Your task to perform on an android device: delete the emails in spam in the gmail app Image 0: 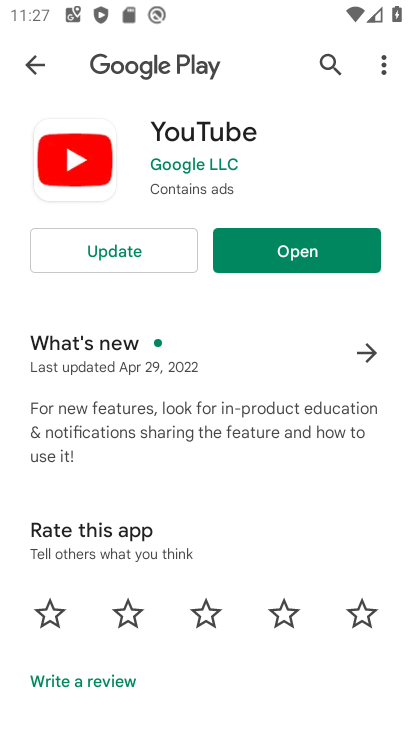
Step 0: press home button
Your task to perform on an android device: delete the emails in spam in the gmail app Image 1: 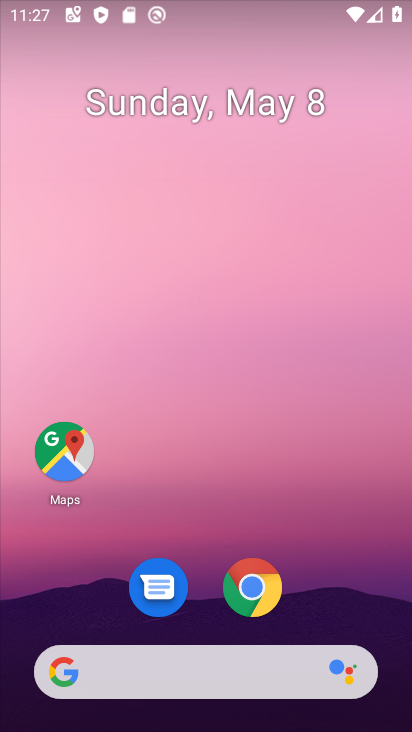
Step 1: drag from (380, 607) to (144, 12)
Your task to perform on an android device: delete the emails in spam in the gmail app Image 2: 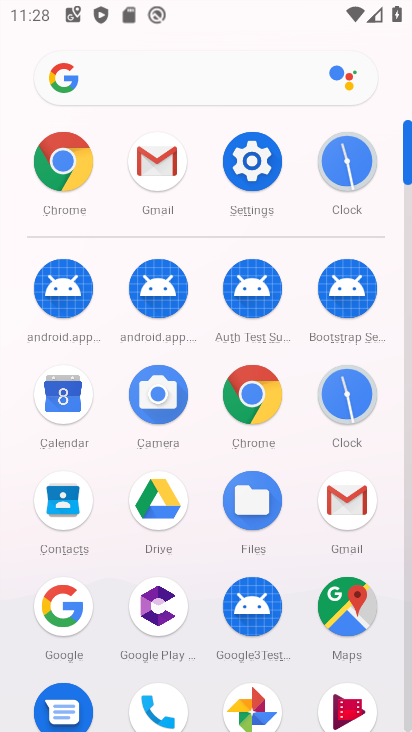
Step 2: click (344, 488)
Your task to perform on an android device: delete the emails in spam in the gmail app Image 3: 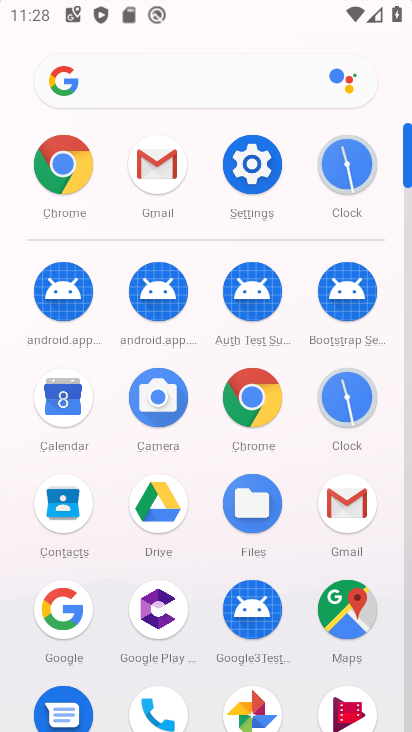
Step 3: click (344, 496)
Your task to perform on an android device: delete the emails in spam in the gmail app Image 4: 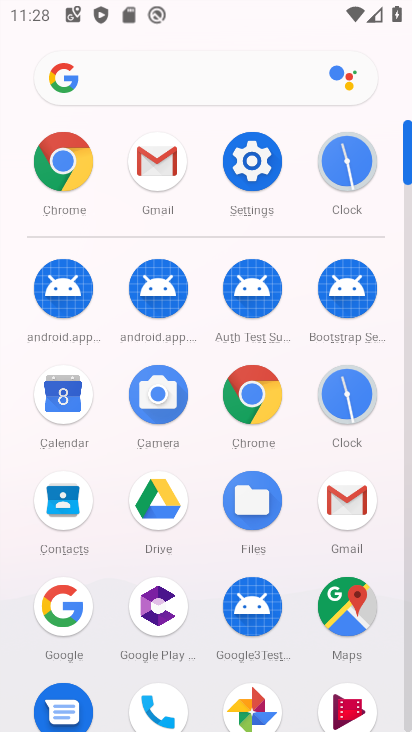
Step 4: click (160, 160)
Your task to perform on an android device: delete the emails in spam in the gmail app Image 5: 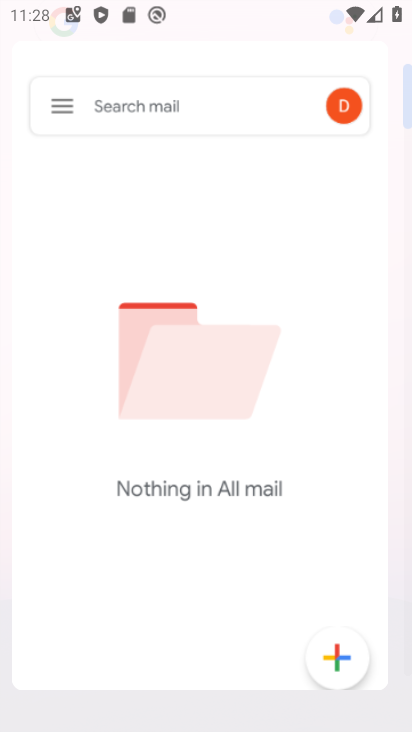
Step 5: click (142, 167)
Your task to perform on an android device: delete the emails in spam in the gmail app Image 6: 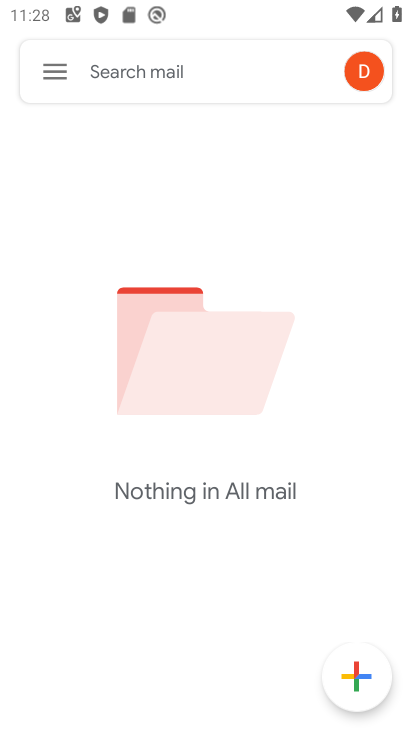
Step 6: click (142, 168)
Your task to perform on an android device: delete the emails in spam in the gmail app Image 7: 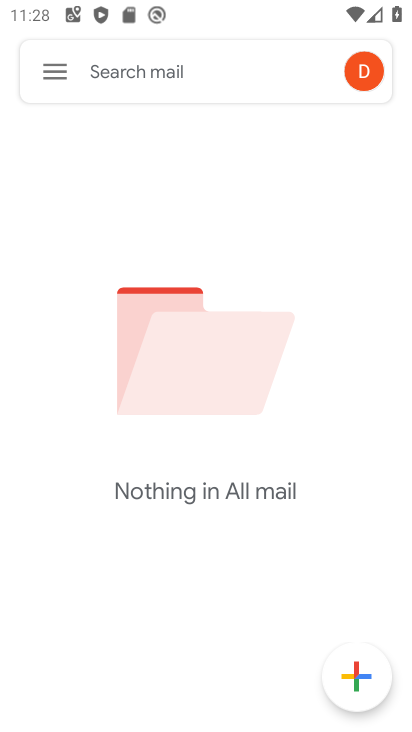
Step 7: click (43, 65)
Your task to perform on an android device: delete the emails in spam in the gmail app Image 8: 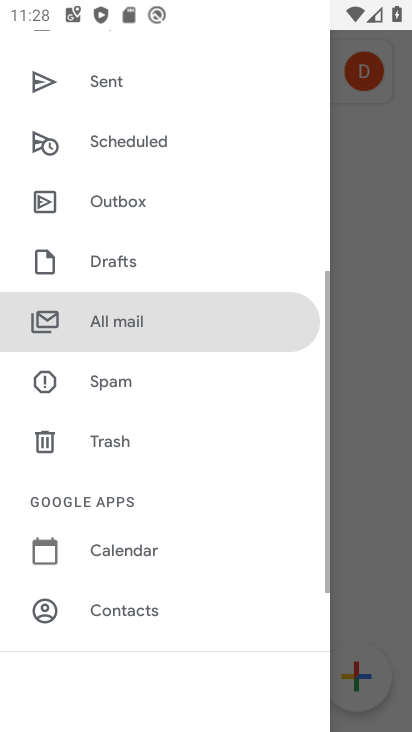
Step 8: click (140, 319)
Your task to perform on an android device: delete the emails in spam in the gmail app Image 9: 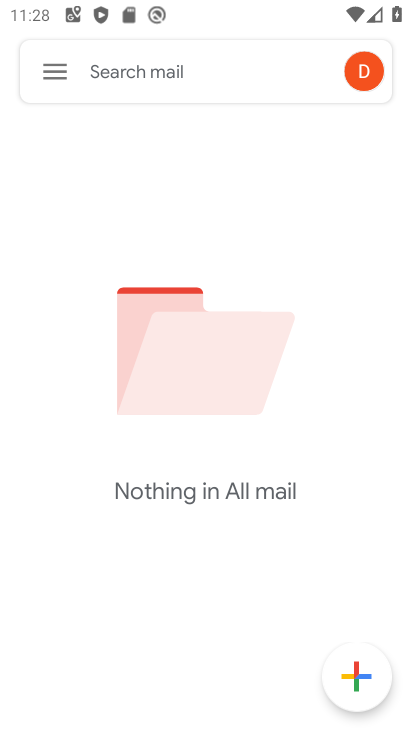
Step 9: task complete